Your task to perform on an android device: allow notifications from all sites in the chrome app Image 0: 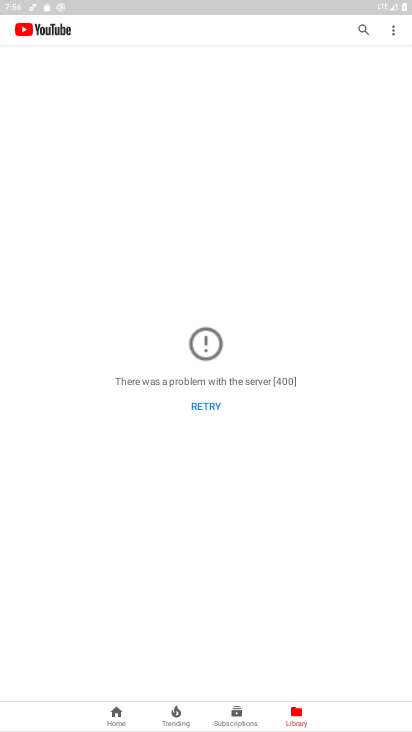
Step 0: press home button
Your task to perform on an android device: allow notifications from all sites in the chrome app Image 1: 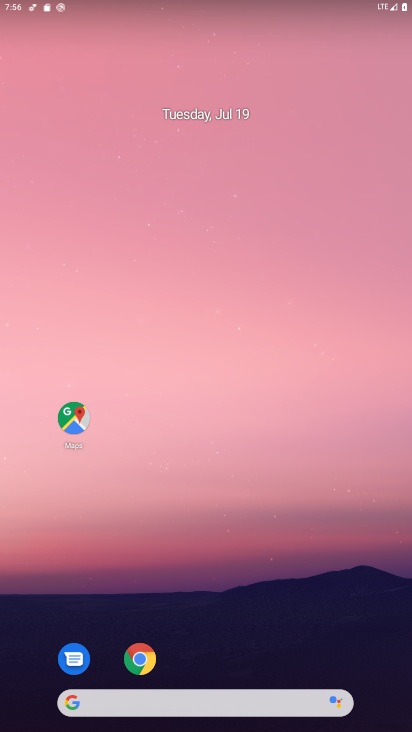
Step 1: click (145, 659)
Your task to perform on an android device: allow notifications from all sites in the chrome app Image 2: 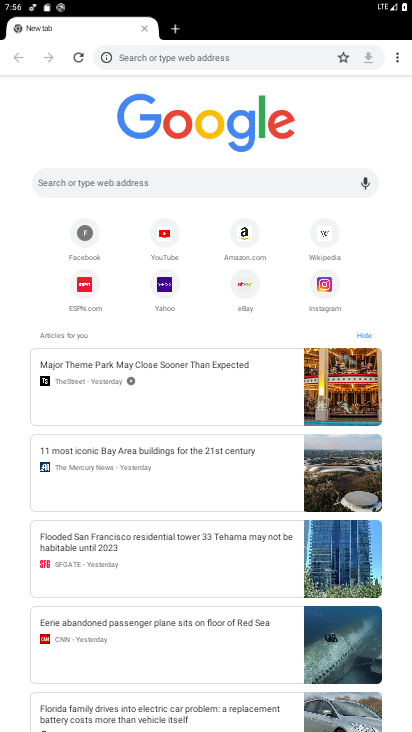
Step 2: click (395, 54)
Your task to perform on an android device: allow notifications from all sites in the chrome app Image 3: 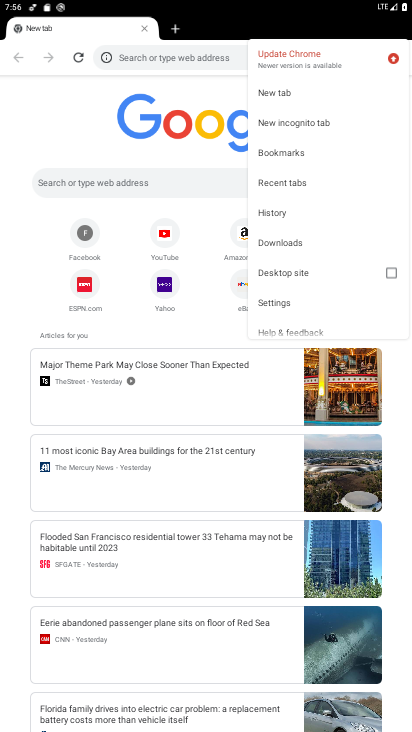
Step 3: click (271, 303)
Your task to perform on an android device: allow notifications from all sites in the chrome app Image 4: 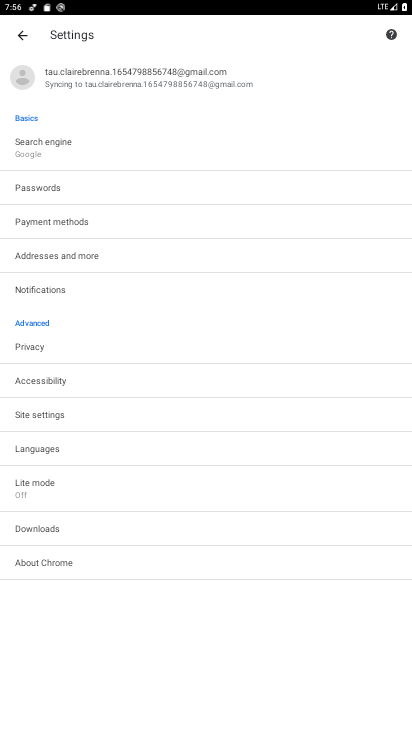
Step 4: click (48, 289)
Your task to perform on an android device: allow notifications from all sites in the chrome app Image 5: 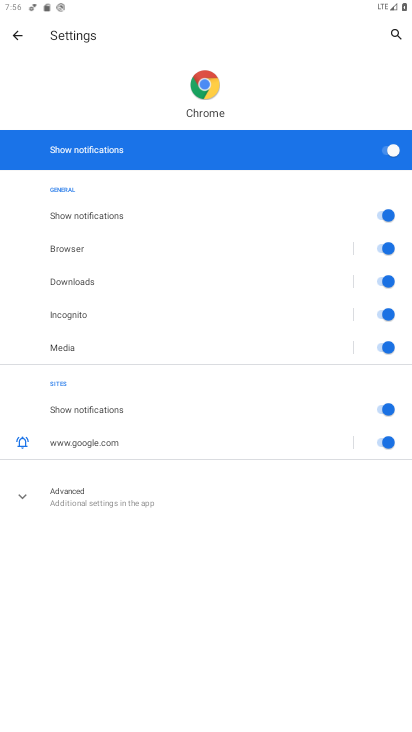
Step 5: task complete